Your task to perform on an android device: Is it going to rain this weekend? Image 0: 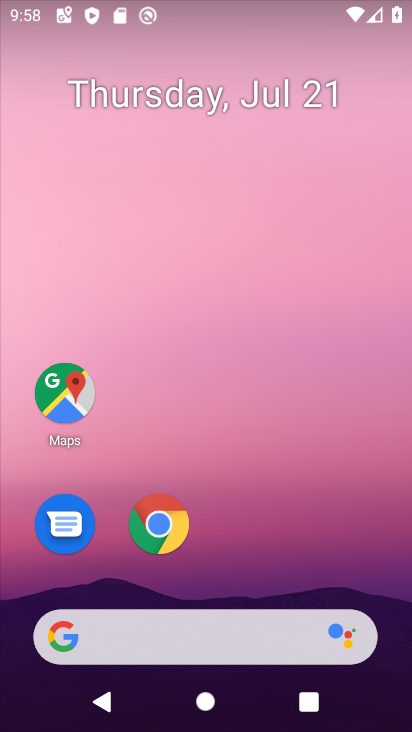
Step 0: click (120, 634)
Your task to perform on an android device: Is it going to rain this weekend? Image 1: 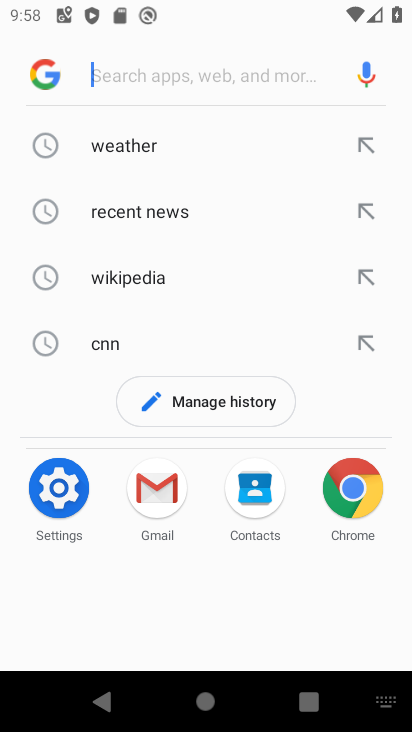
Step 1: click (148, 152)
Your task to perform on an android device: Is it going to rain this weekend? Image 2: 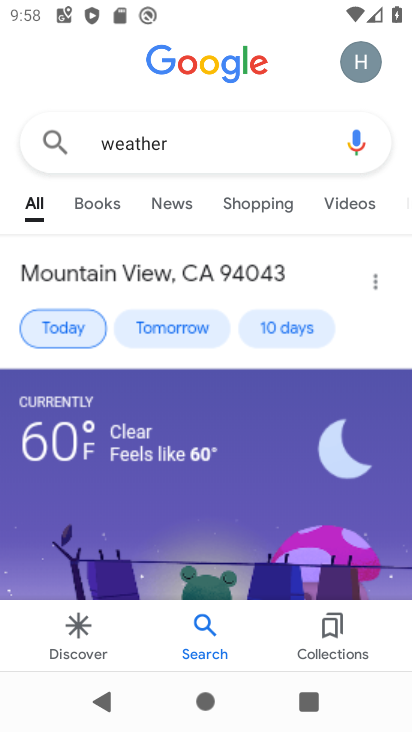
Step 2: click (285, 328)
Your task to perform on an android device: Is it going to rain this weekend? Image 3: 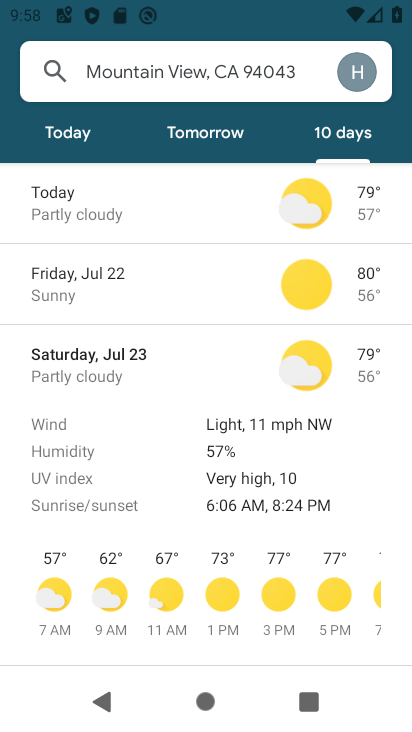
Step 3: task complete